Your task to perform on an android device: clear history in the chrome app Image 0: 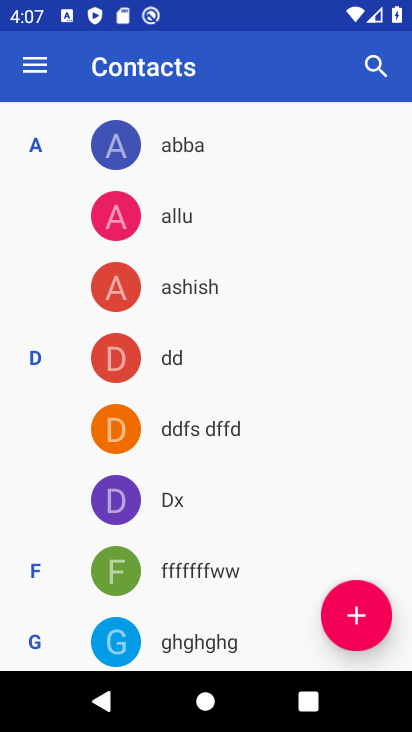
Step 0: press home button
Your task to perform on an android device: clear history in the chrome app Image 1: 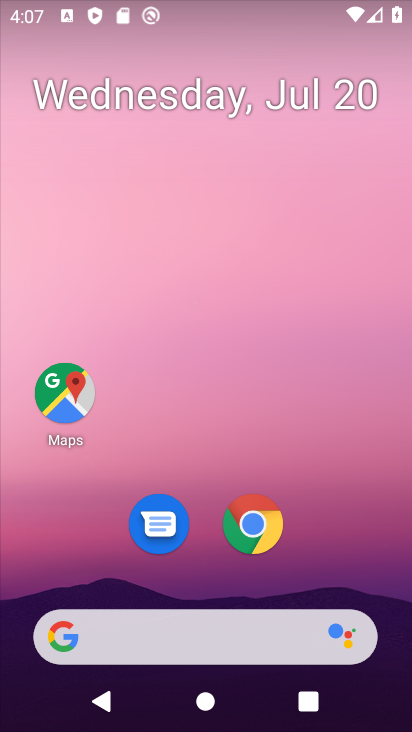
Step 1: click (260, 523)
Your task to perform on an android device: clear history in the chrome app Image 2: 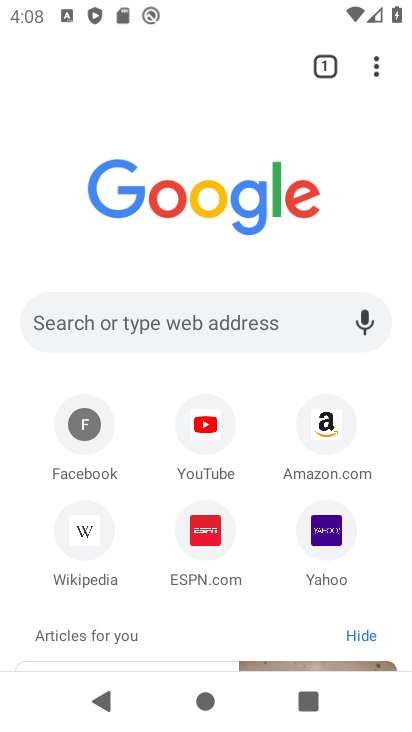
Step 2: click (375, 60)
Your task to perform on an android device: clear history in the chrome app Image 3: 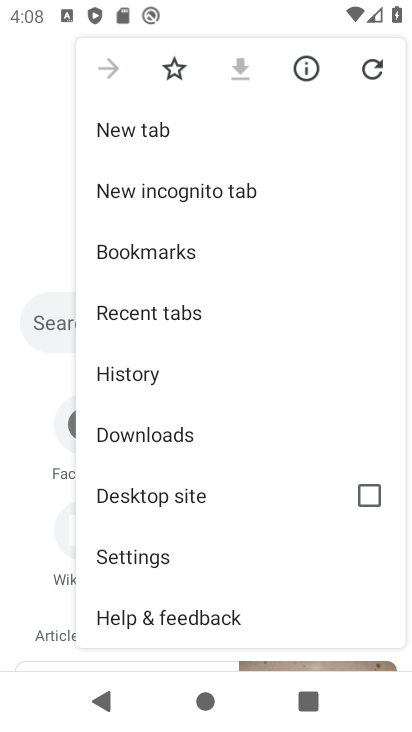
Step 3: click (135, 372)
Your task to perform on an android device: clear history in the chrome app Image 4: 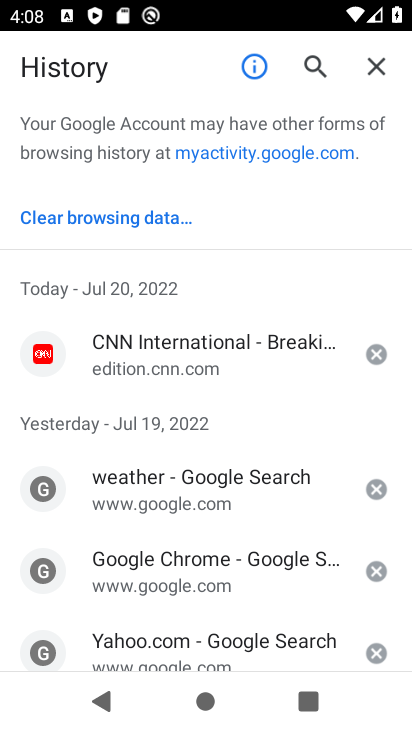
Step 4: click (135, 216)
Your task to perform on an android device: clear history in the chrome app Image 5: 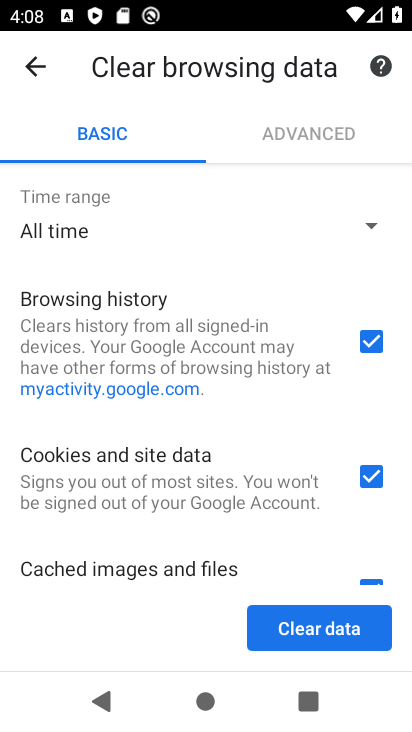
Step 5: click (352, 620)
Your task to perform on an android device: clear history in the chrome app Image 6: 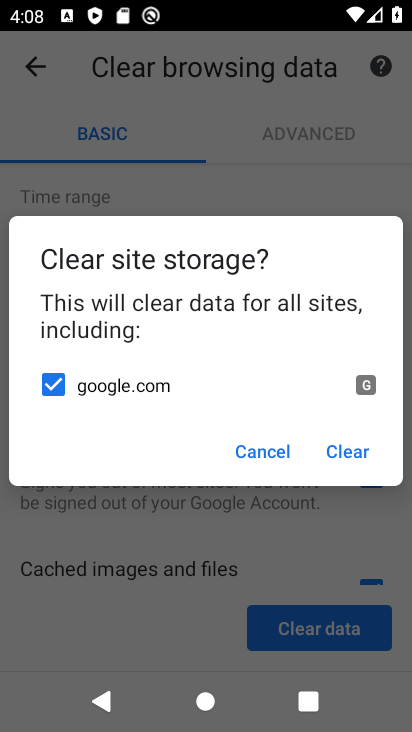
Step 6: click (365, 450)
Your task to perform on an android device: clear history in the chrome app Image 7: 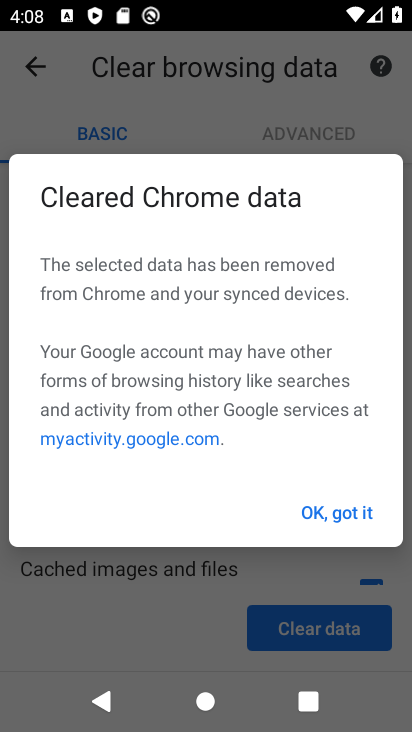
Step 7: click (351, 513)
Your task to perform on an android device: clear history in the chrome app Image 8: 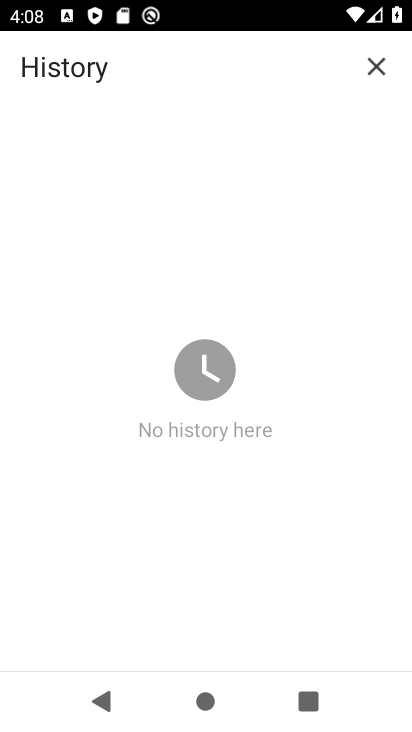
Step 8: task complete